Your task to perform on an android device: turn on wifi Image 0: 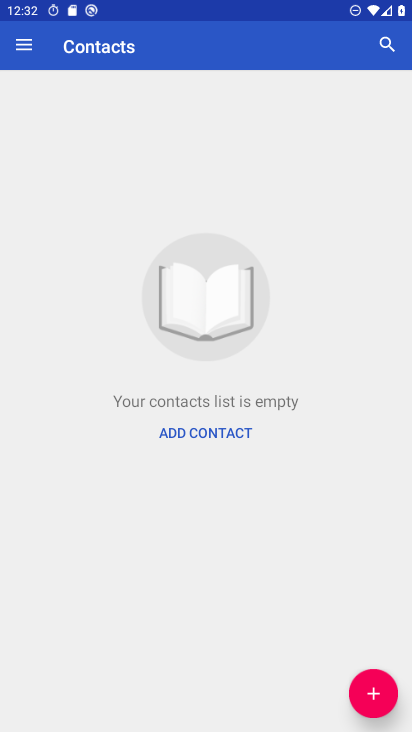
Step 0: press home button
Your task to perform on an android device: turn on wifi Image 1: 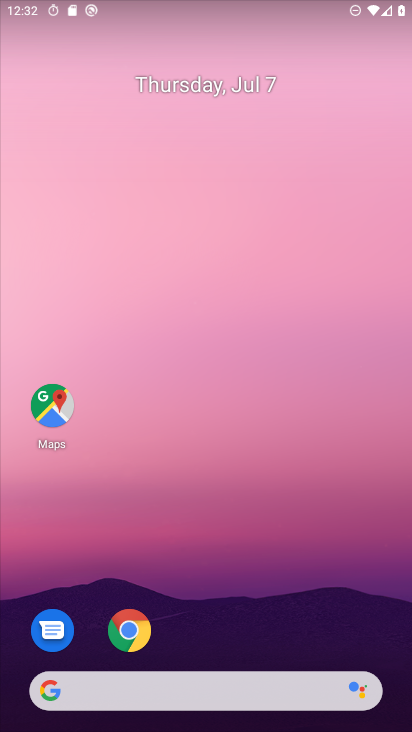
Step 1: drag from (267, 607) to (167, 0)
Your task to perform on an android device: turn on wifi Image 2: 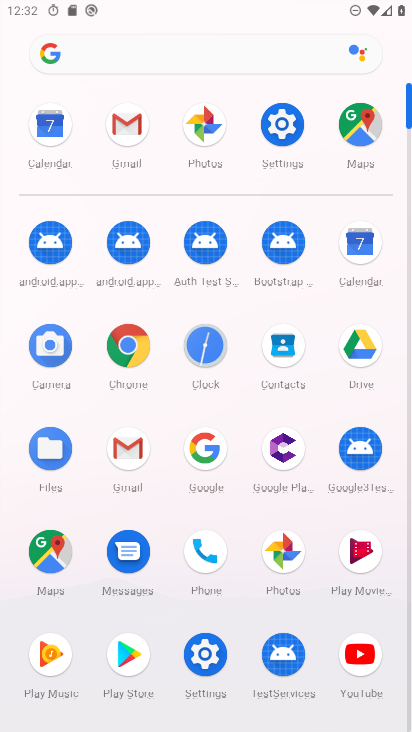
Step 2: click (205, 654)
Your task to perform on an android device: turn on wifi Image 3: 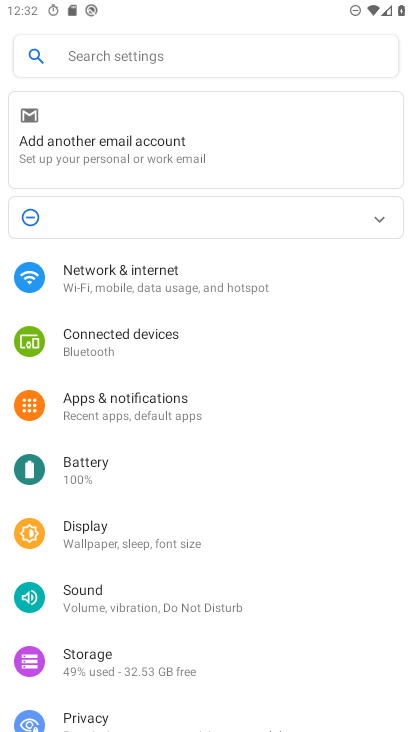
Step 3: click (183, 289)
Your task to perform on an android device: turn on wifi Image 4: 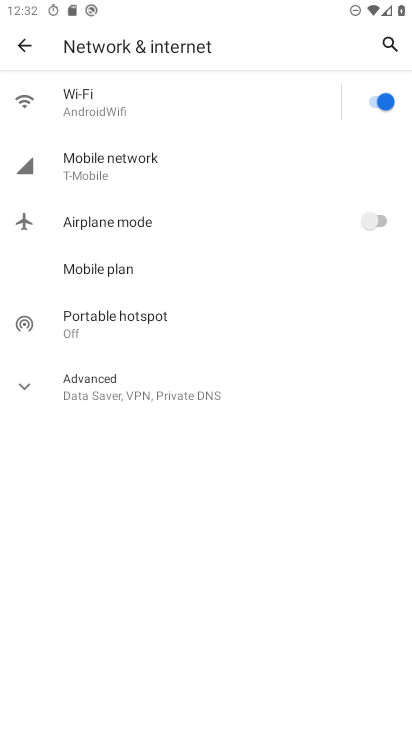
Step 4: task complete